Your task to perform on an android device: Open ESPN.com Image 0: 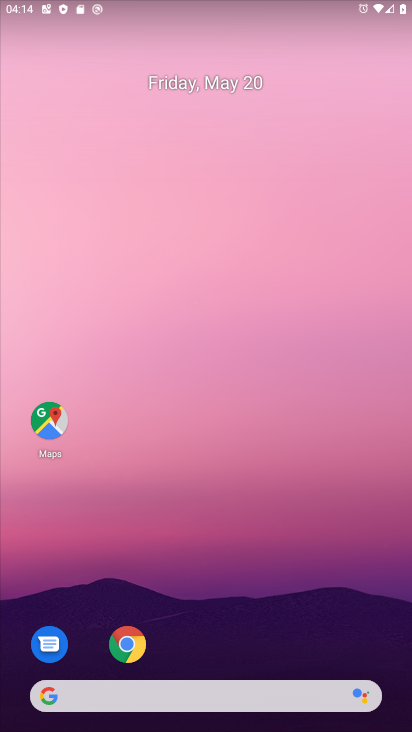
Step 0: click (147, 654)
Your task to perform on an android device: Open ESPN.com Image 1: 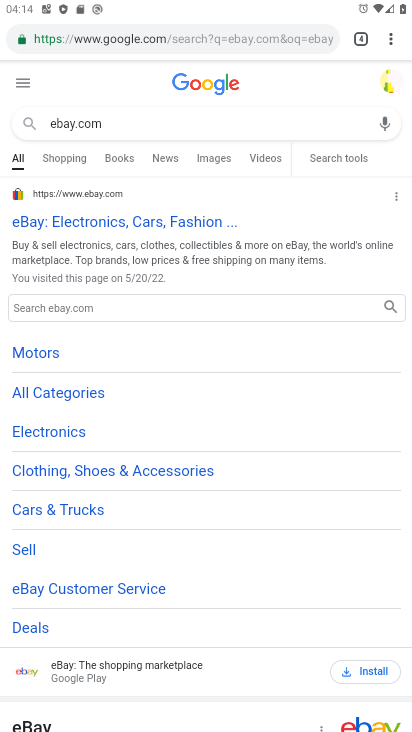
Step 1: click (227, 48)
Your task to perform on an android device: Open ESPN.com Image 2: 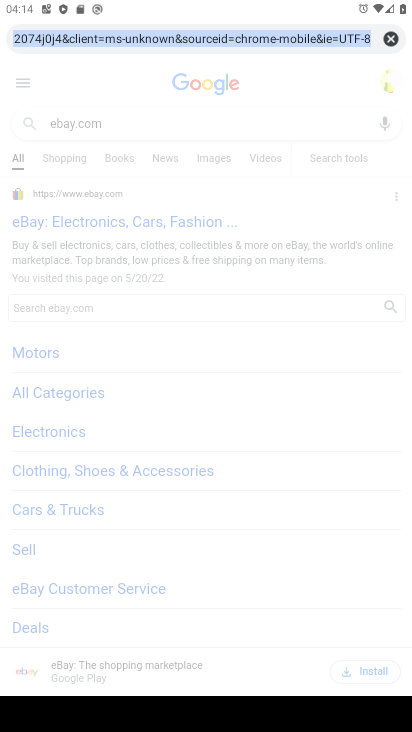
Step 2: type "espn.com"
Your task to perform on an android device: Open ESPN.com Image 3: 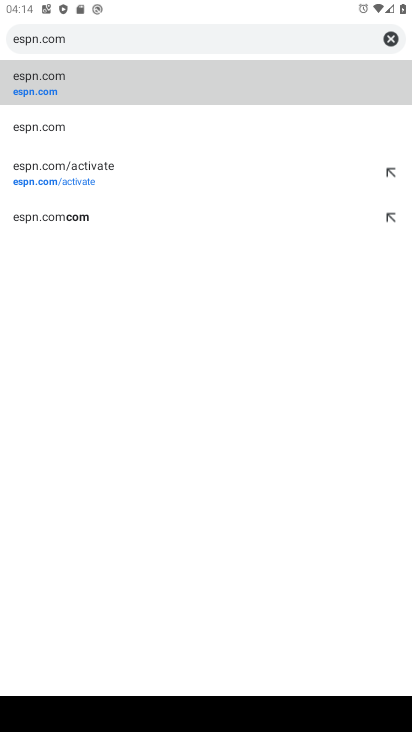
Step 3: click (76, 97)
Your task to perform on an android device: Open ESPN.com Image 4: 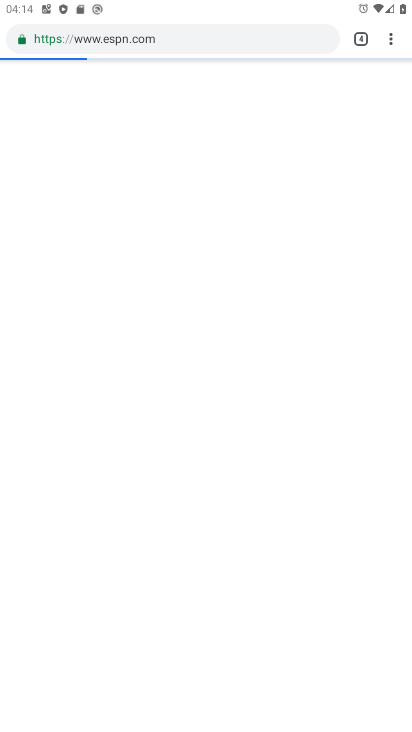
Step 4: task complete